Your task to perform on an android device: check out phone information Image 0: 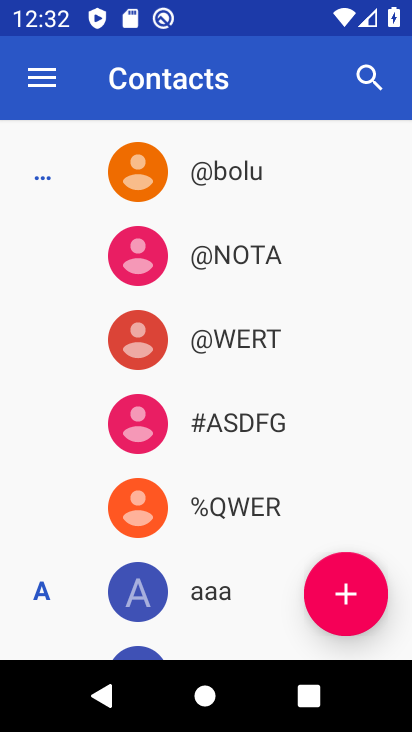
Step 0: press home button
Your task to perform on an android device: check out phone information Image 1: 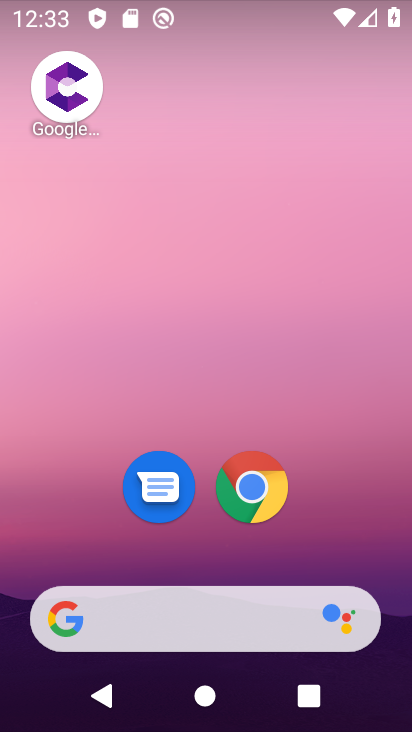
Step 1: drag from (357, 540) to (369, 89)
Your task to perform on an android device: check out phone information Image 2: 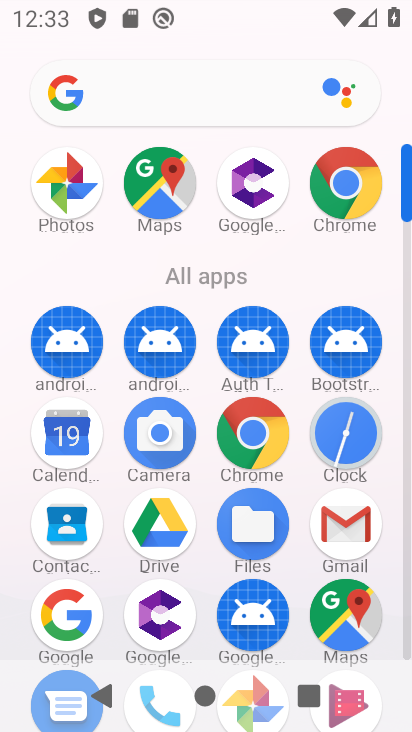
Step 2: click (408, 561)
Your task to perform on an android device: check out phone information Image 3: 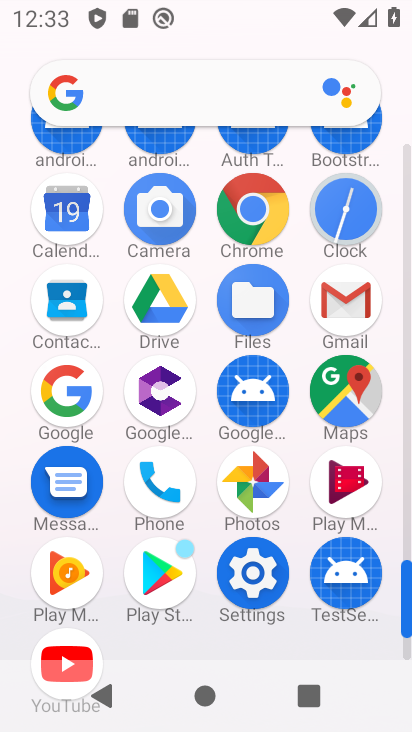
Step 3: click (155, 506)
Your task to perform on an android device: check out phone information Image 4: 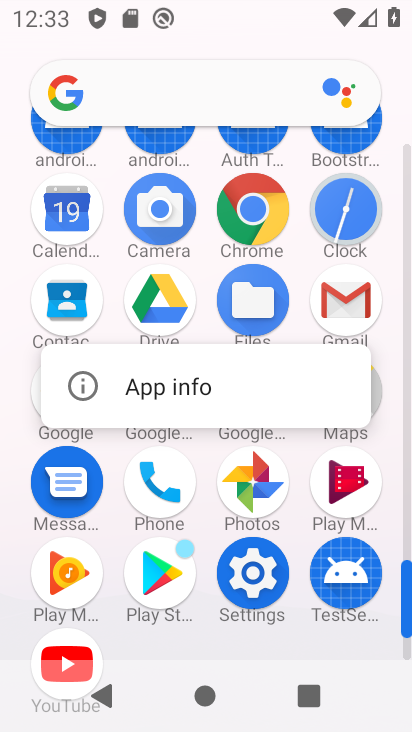
Step 4: click (175, 372)
Your task to perform on an android device: check out phone information Image 5: 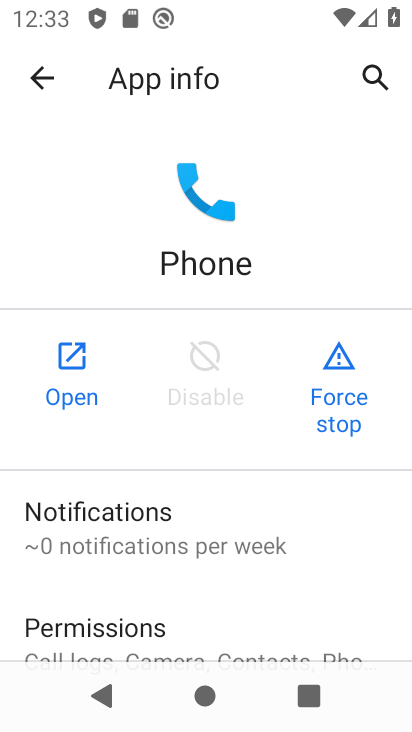
Step 5: task complete